Your task to perform on an android device: Open eBay Image 0: 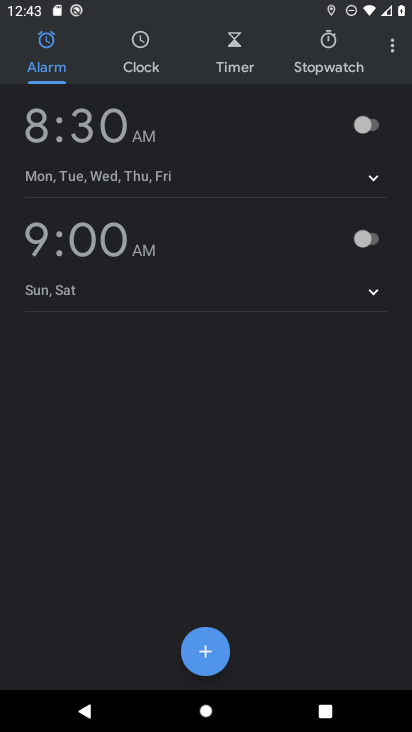
Step 0: press home button
Your task to perform on an android device: Open eBay Image 1: 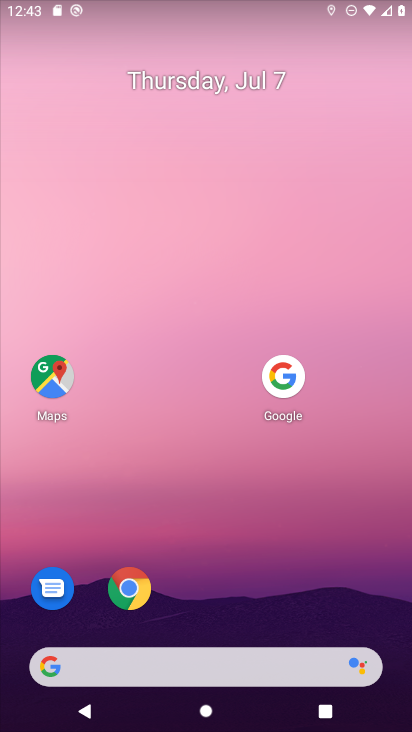
Step 1: click (136, 585)
Your task to perform on an android device: Open eBay Image 2: 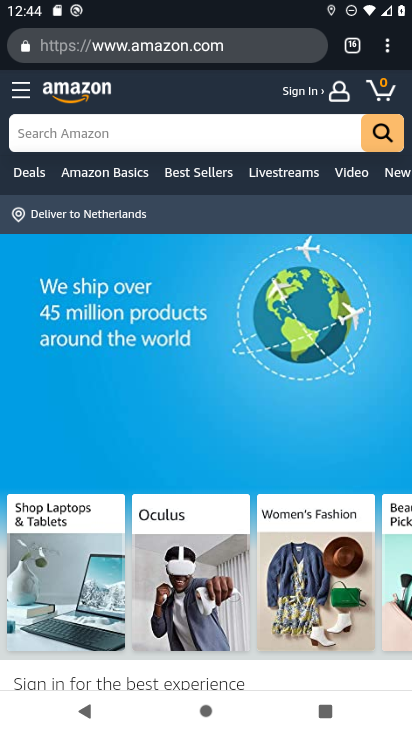
Step 2: click (386, 54)
Your task to perform on an android device: Open eBay Image 3: 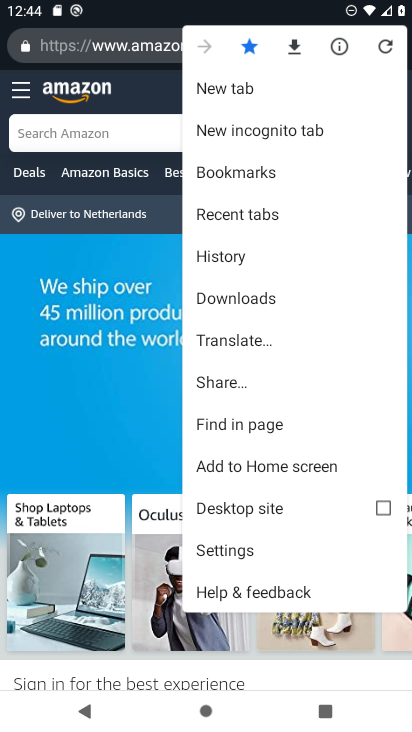
Step 3: click (238, 87)
Your task to perform on an android device: Open eBay Image 4: 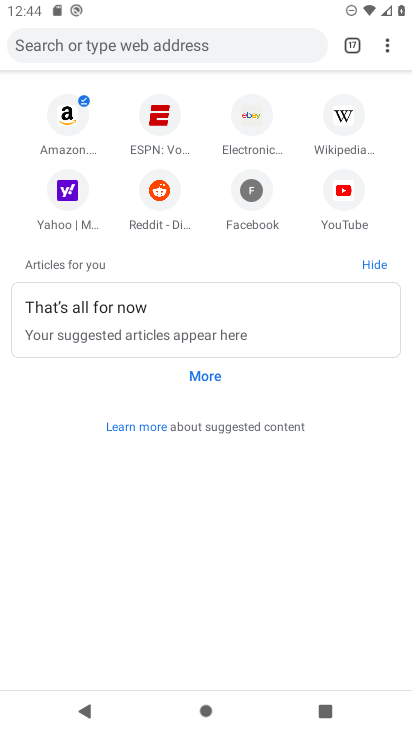
Step 4: click (245, 118)
Your task to perform on an android device: Open eBay Image 5: 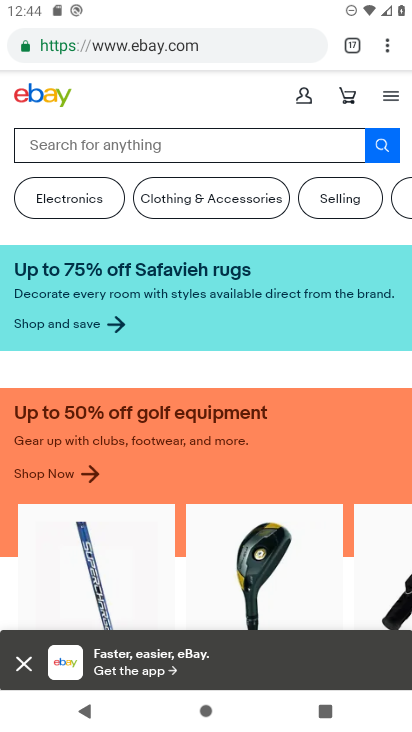
Step 5: task complete